Your task to perform on an android device: change the upload size in google photos Image 0: 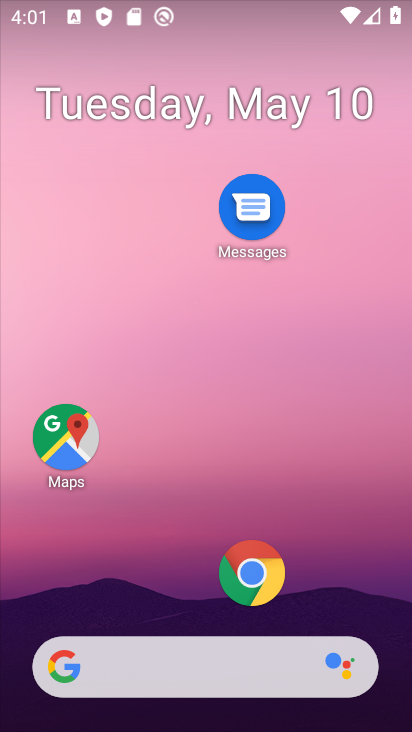
Step 0: drag from (163, 598) to (173, 238)
Your task to perform on an android device: change the upload size in google photos Image 1: 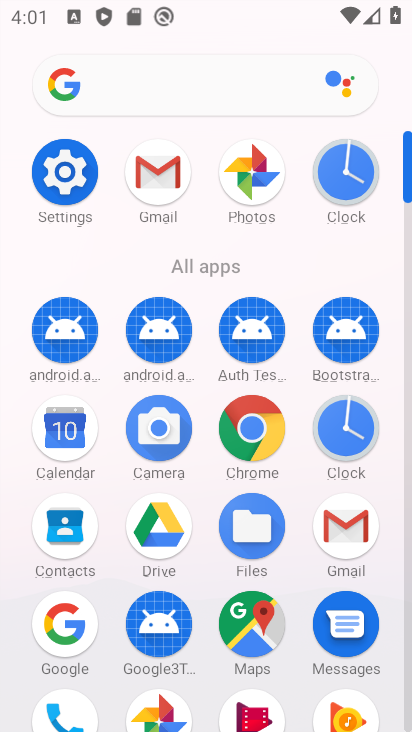
Step 1: click (237, 207)
Your task to perform on an android device: change the upload size in google photos Image 2: 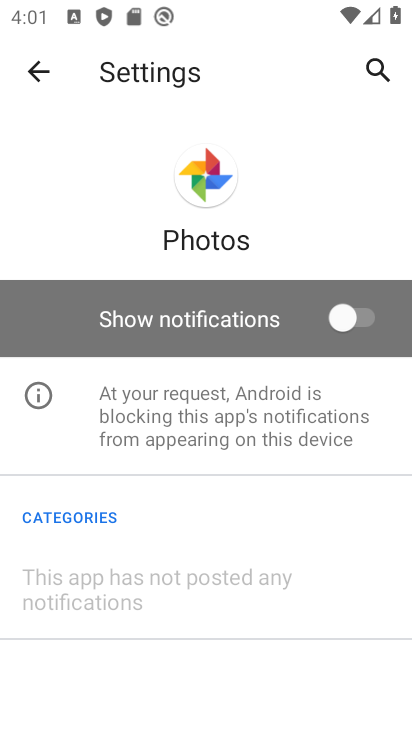
Step 2: click (40, 84)
Your task to perform on an android device: change the upload size in google photos Image 3: 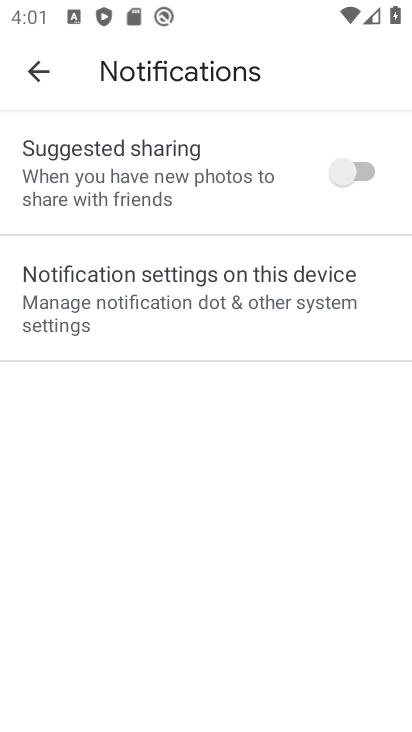
Step 3: click (33, 80)
Your task to perform on an android device: change the upload size in google photos Image 4: 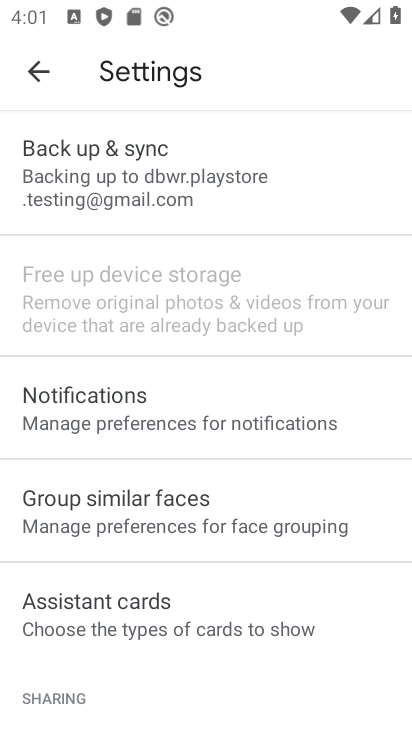
Step 4: drag from (207, 603) to (212, 312)
Your task to perform on an android device: change the upload size in google photos Image 5: 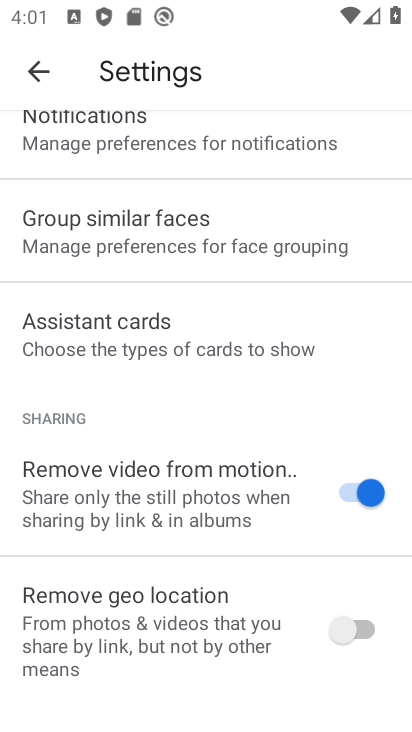
Step 5: click (41, 84)
Your task to perform on an android device: change the upload size in google photos Image 6: 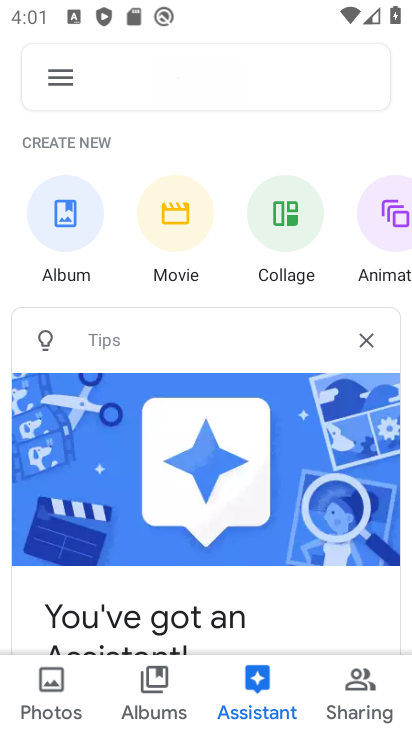
Step 6: click (50, 83)
Your task to perform on an android device: change the upload size in google photos Image 7: 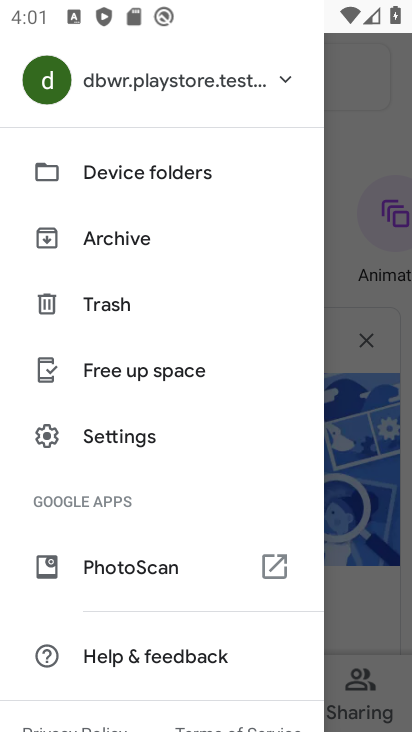
Step 7: click (102, 439)
Your task to perform on an android device: change the upload size in google photos Image 8: 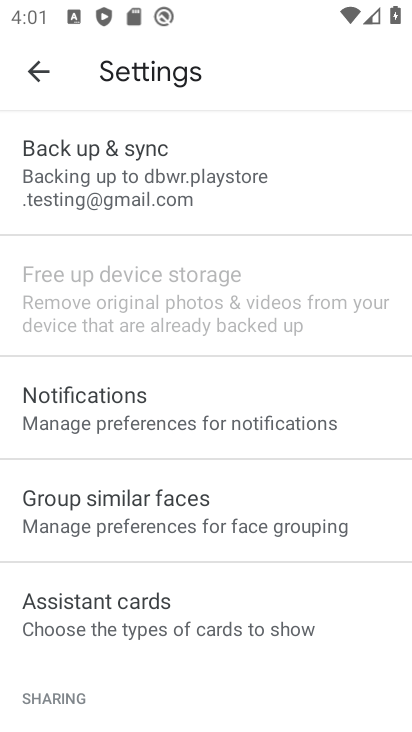
Step 8: click (104, 170)
Your task to perform on an android device: change the upload size in google photos Image 9: 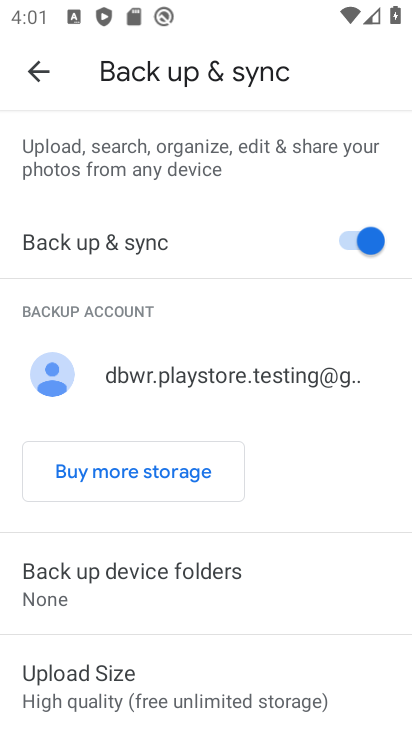
Step 9: click (162, 676)
Your task to perform on an android device: change the upload size in google photos Image 10: 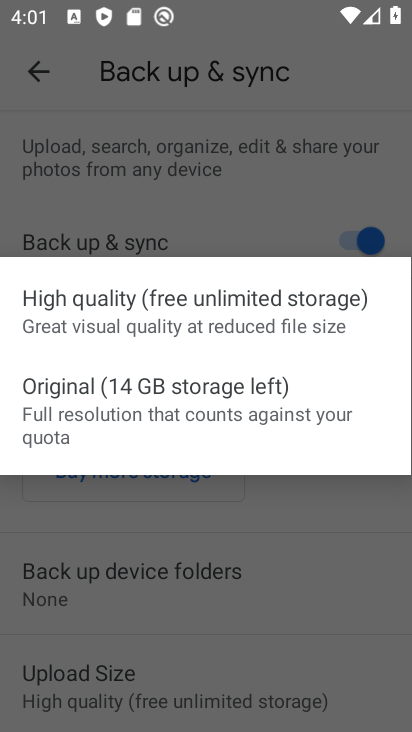
Step 10: click (92, 427)
Your task to perform on an android device: change the upload size in google photos Image 11: 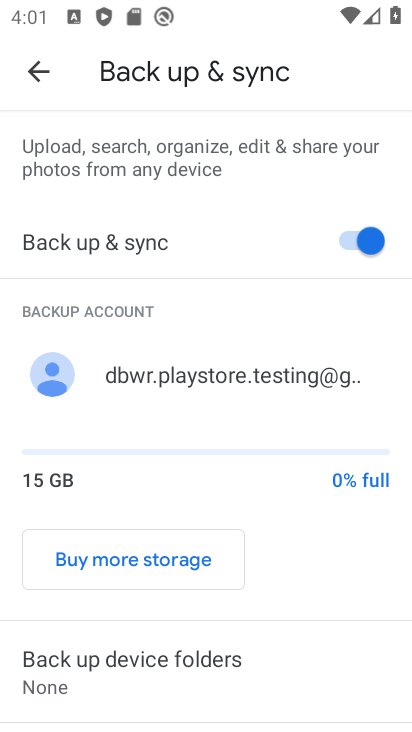
Step 11: task complete